Your task to perform on an android device: Check the news Image 0: 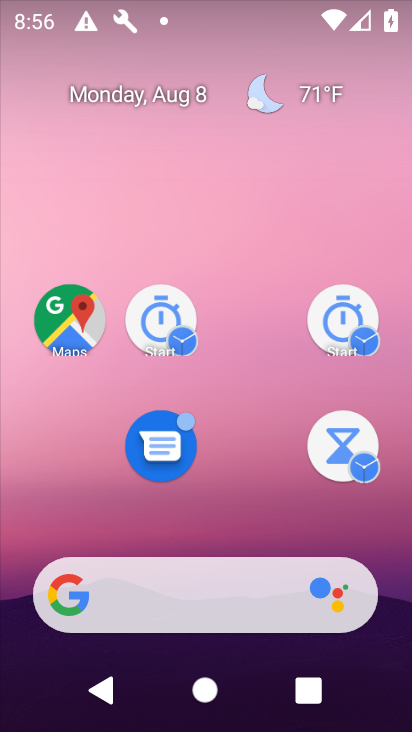
Step 0: click (254, 327)
Your task to perform on an android device: Check the news Image 1: 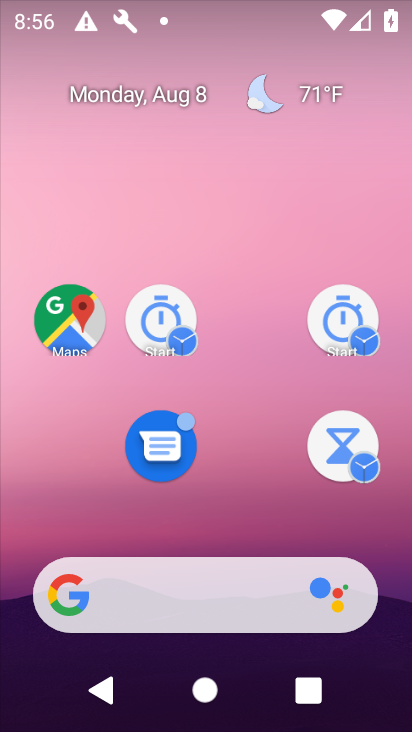
Step 1: drag from (254, 667) to (242, 166)
Your task to perform on an android device: Check the news Image 2: 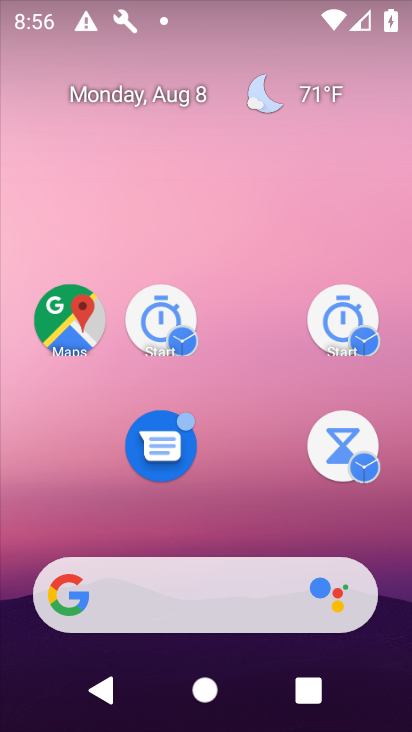
Step 2: drag from (268, 685) to (264, 11)
Your task to perform on an android device: Check the news Image 3: 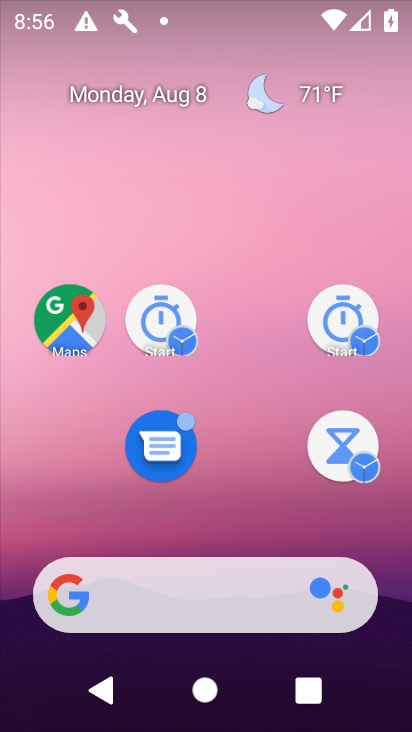
Step 3: drag from (270, 313) to (270, 24)
Your task to perform on an android device: Check the news Image 4: 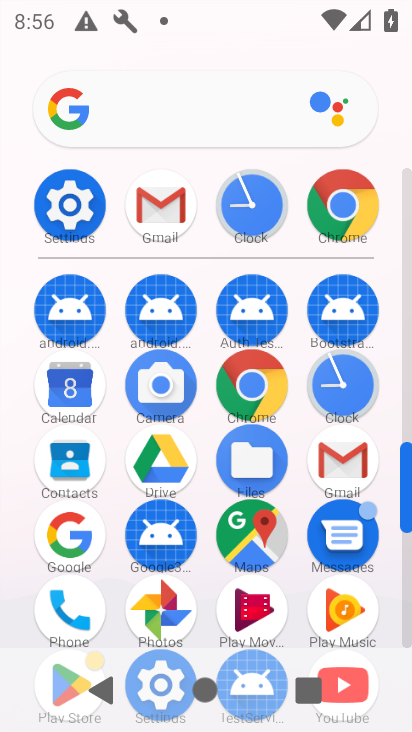
Step 4: drag from (219, 409) to (220, 49)
Your task to perform on an android device: Check the news Image 5: 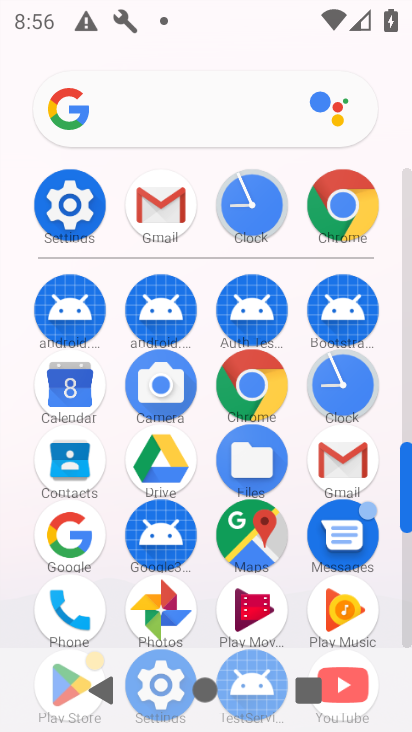
Step 5: click (345, 200)
Your task to perform on an android device: Check the news Image 6: 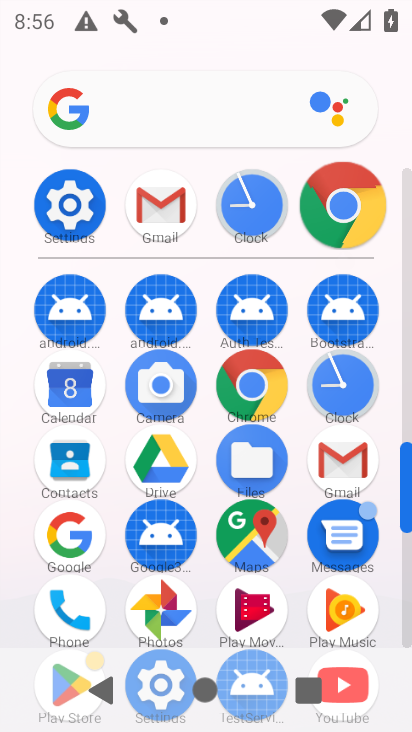
Step 6: click (344, 202)
Your task to perform on an android device: Check the news Image 7: 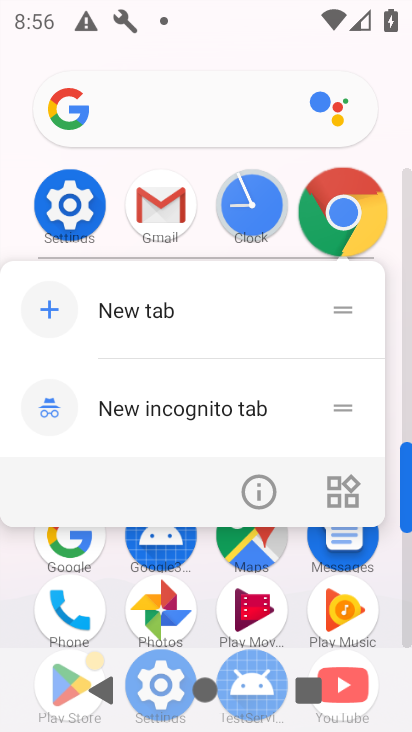
Step 7: click (347, 212)
Your task to perform on an android device: Check the news Image 8: 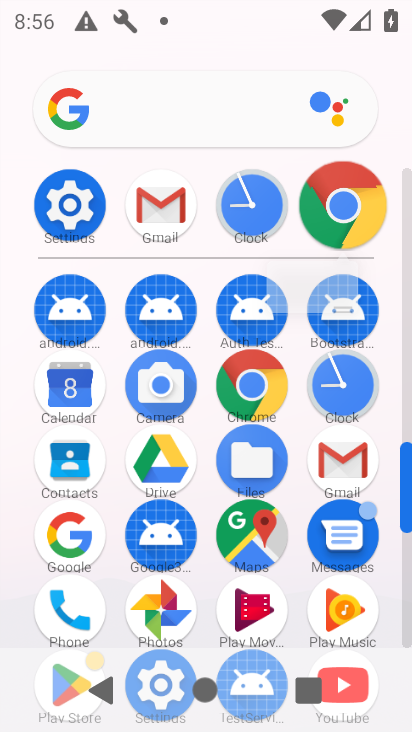
Step 8: click (345, 211)
Your task to perform on an android device: Check the news Image 9: 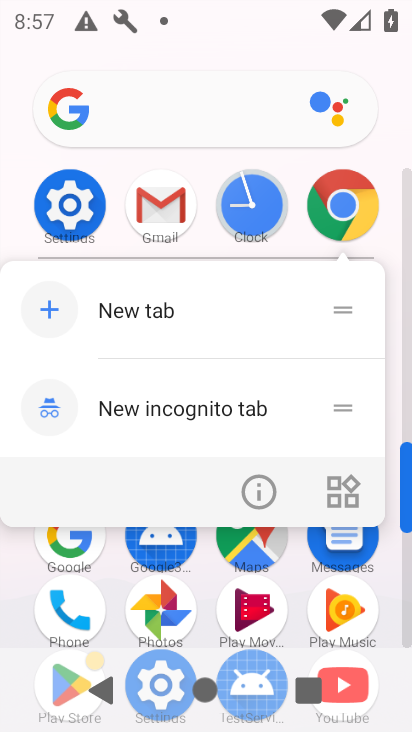
Step 9: click (132, 319)
Your task to perform on an android device: Check the news Image 10: 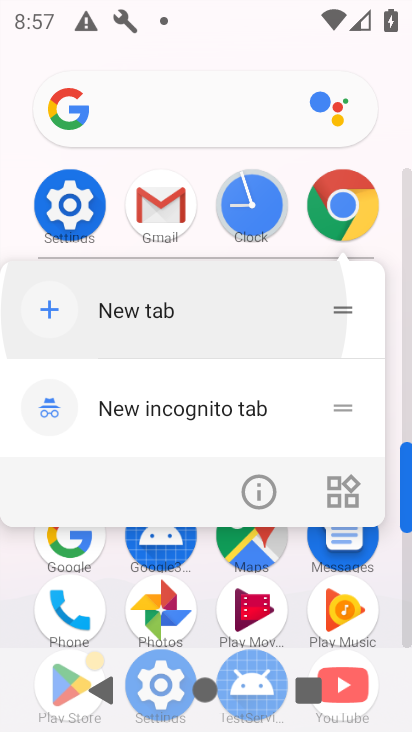
Step 10: click (118, 315)
Your task to perform on an android device: Check the news Image 11: 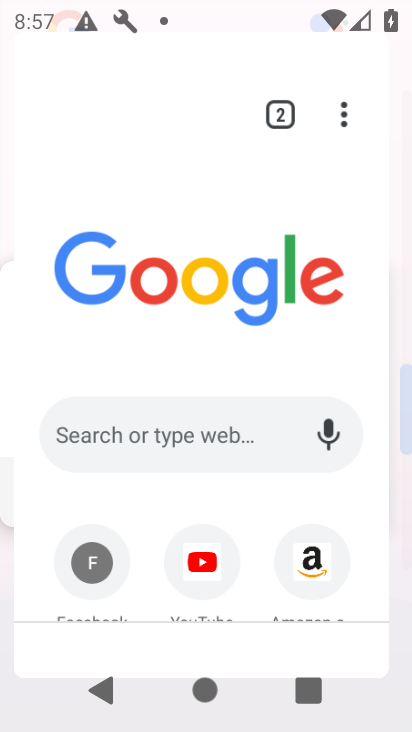
Step 11: click (145, 303)
Your task to perform on an android device: Check the news Image 12: 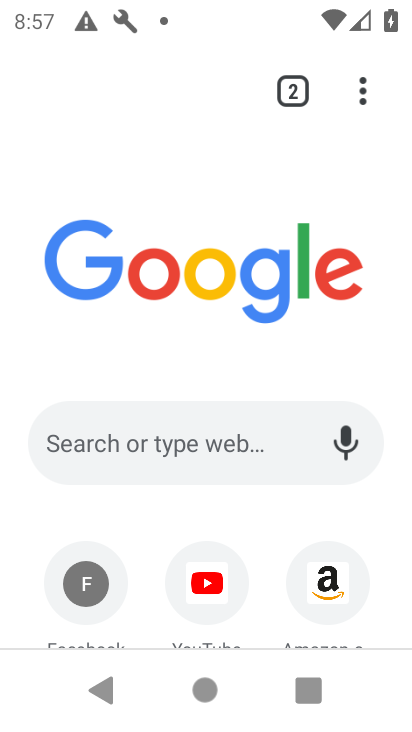
Step 12: drag from (265, 559) to (233, 90)
Your task to perform on an android device: Check the news Image 13: 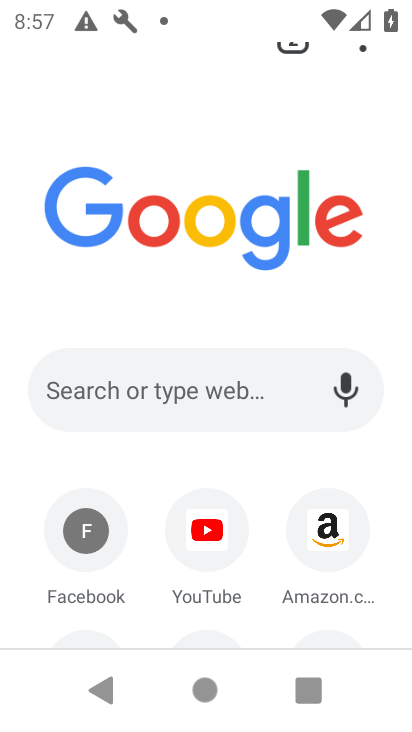
Step 13: drag from (257, 420) to (230, 67)
Your task to perform on an android device: Check the news Image 14: 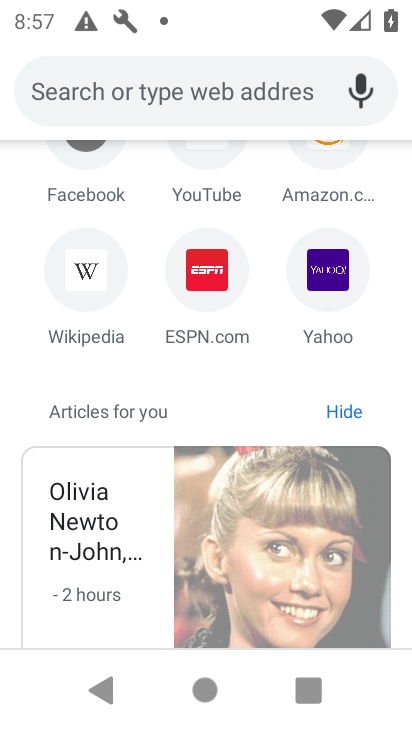
Step 14: drag from (269, 365) to (274, 16)
Your task to perform on an android device: Check the news Image 15: 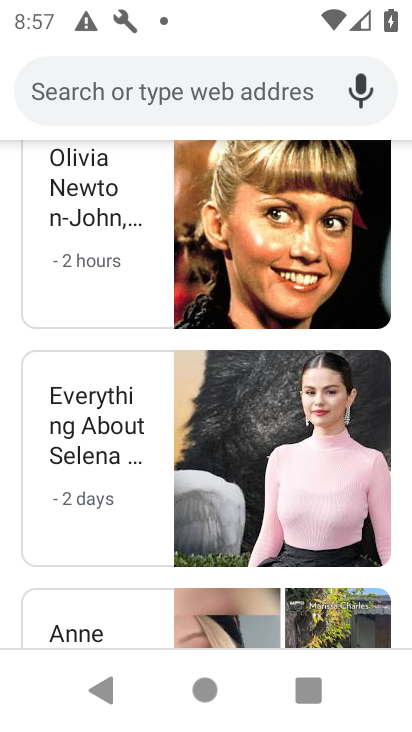
Step 15: click (231, 115)
Your task to perform on an android device: Check the news Image 16: 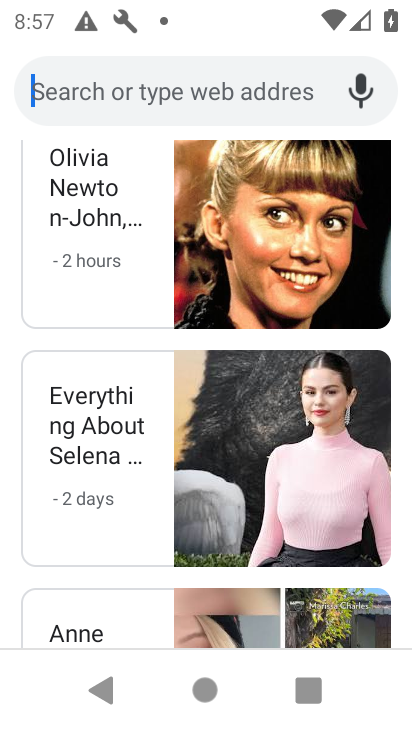
Step 16: task complete